Your task to perform on an android device: When is my next meeting? Image 0: 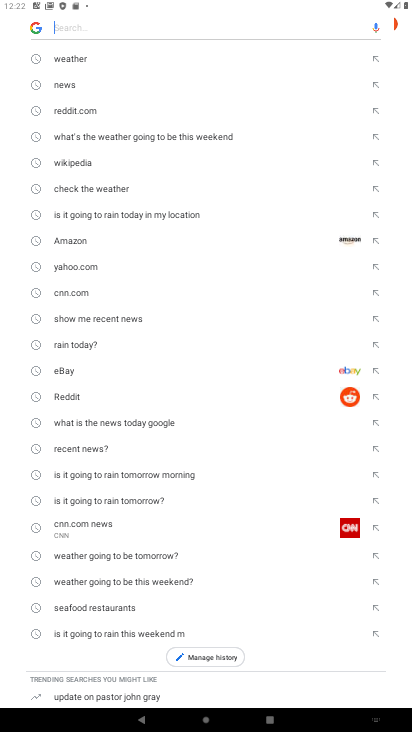
Step 0: press home button
Your task to perform on an android device: When is my next meeting? Image 1: 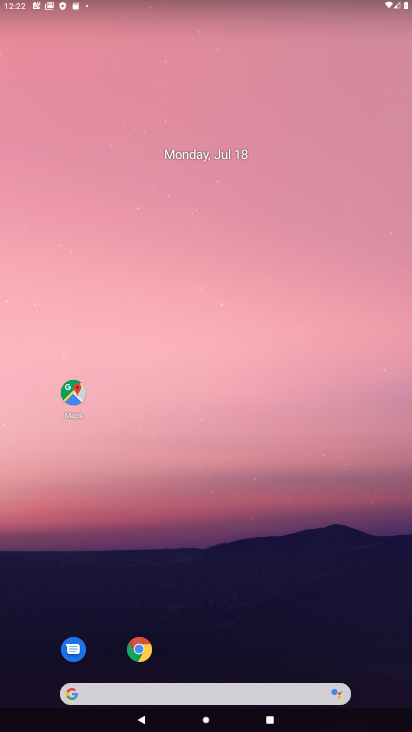
Step 1: drag from (368, 643) to (305, 93)
Your task to perform on an android device: When is my next meeting? Image 2: 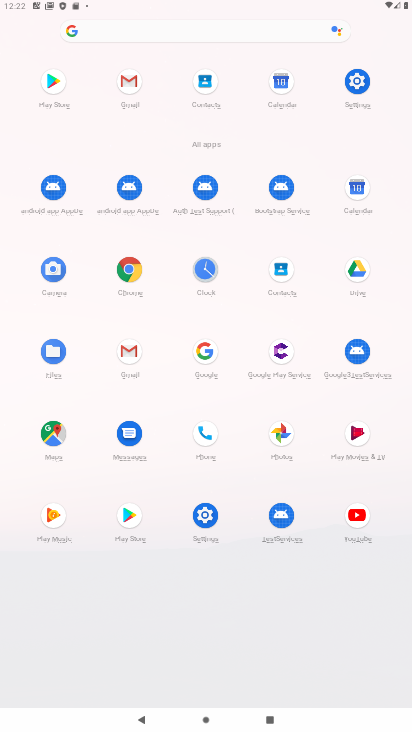
Step 2: click (355, 185)
Your task to perform on an android device: When is my next meeting? Image 3: 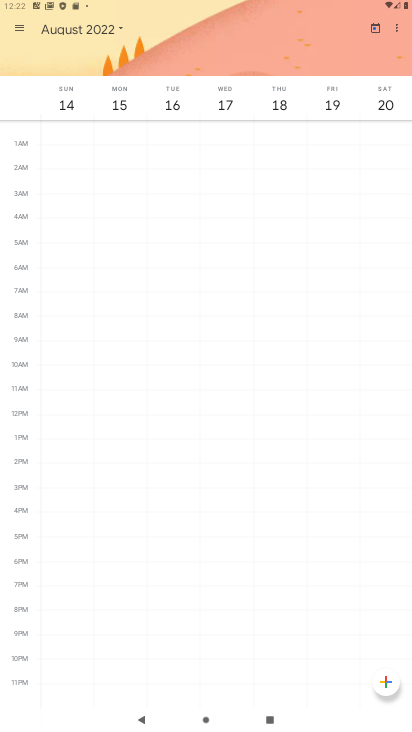
Step 3: click (21, 24)
Your task to perform on an android device: When is my next meeting? Image 4: 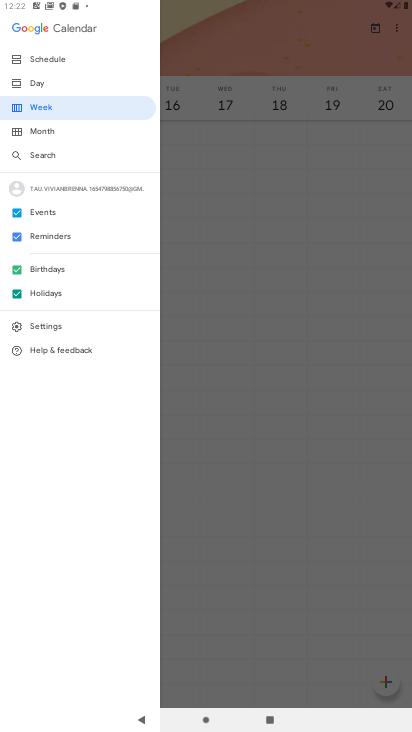
Step 4: click (45, 57)
Your task to perform on an android device: When is my next meeting? Image 5: 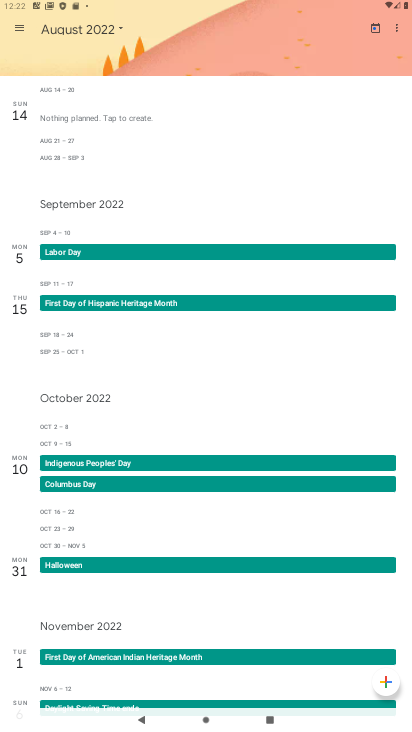
Step 5: task complete